Your task to perform on an android device: turn notification dots on Image 0: 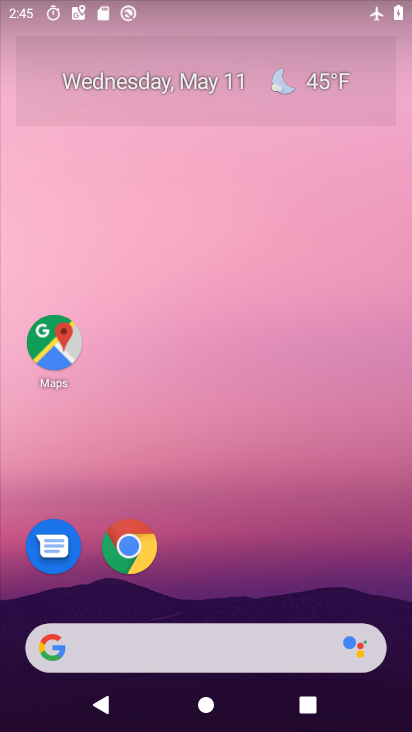
Step 0: drag from (214, 570) to (96, 241)
Your task to perform on an android device: turn notification dots on Image 1: 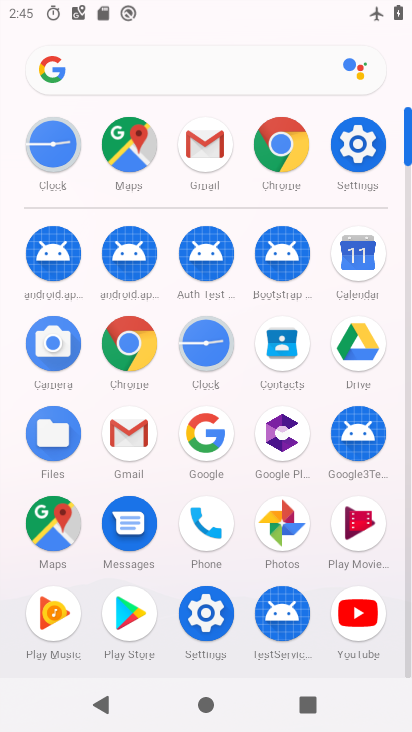
Step 1: click (368, 182)
Your task to perform on an android device: turn notification dots on Image 2: 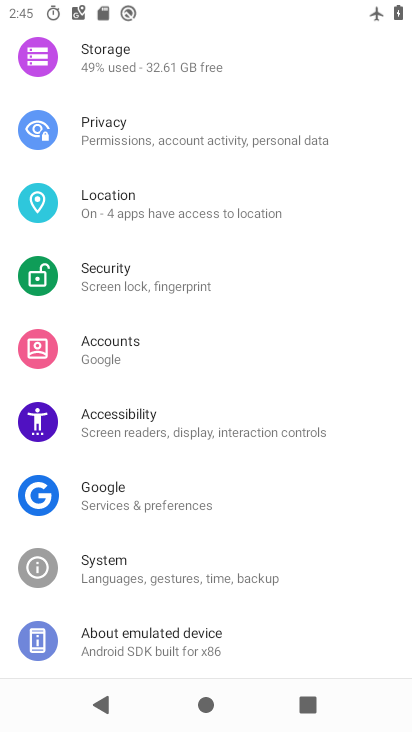
Step 2: drag from (188, 154) to (207, 519)
Your task to perform on an android device: turn notification dots on Image 3: 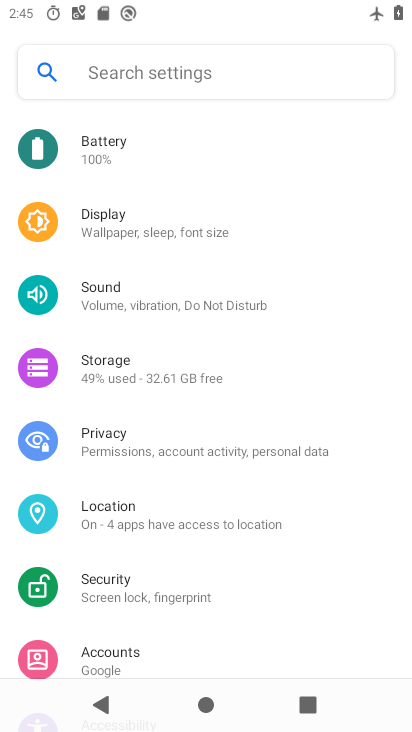
Step 3: drag from (158, 187) to (186, 613)
Your task to perform on an android device: turn notification dots on Image 4: 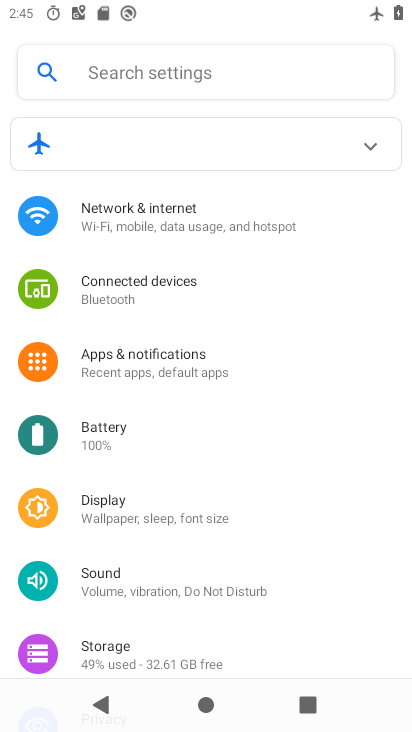
Step 4: click (162, 379)
Your task to perform on an android device: turn notification dots on Image 5: 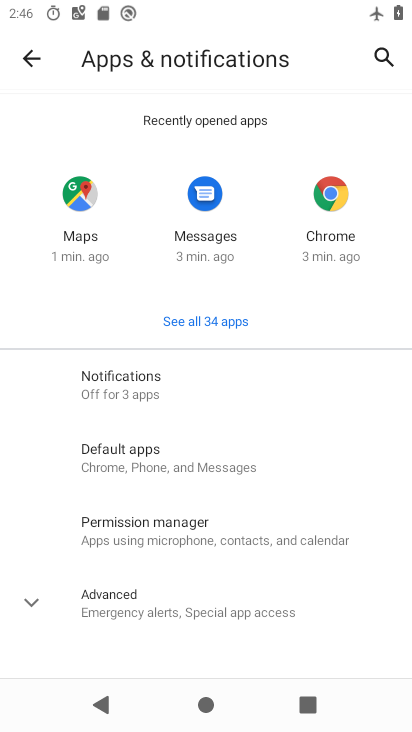
Step 5: click (97, 600)
Your task to perform on an android device: turn notification dots on Image 6: 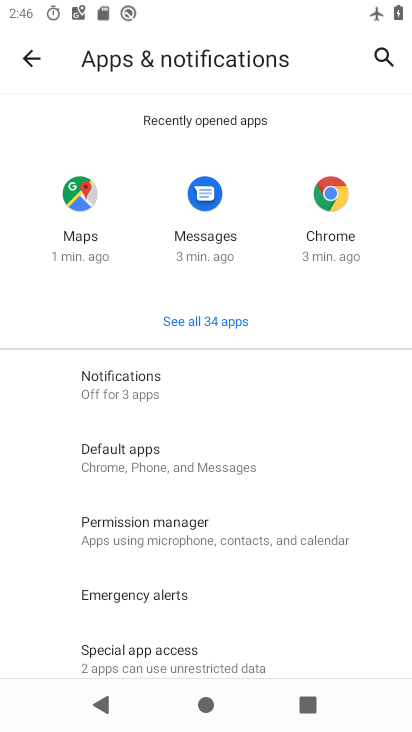
Step 6: drag from (210, 618) to (290, 163)
Your task to perform on an android device: turn notification dots on Image 7: 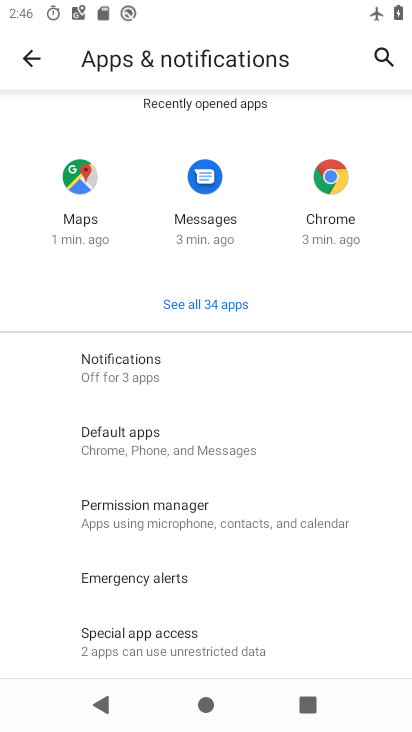
Step 7: drag from (194, 576) to (259, 210)
Your task to perform on an android device: turn notification dots on Image 8: 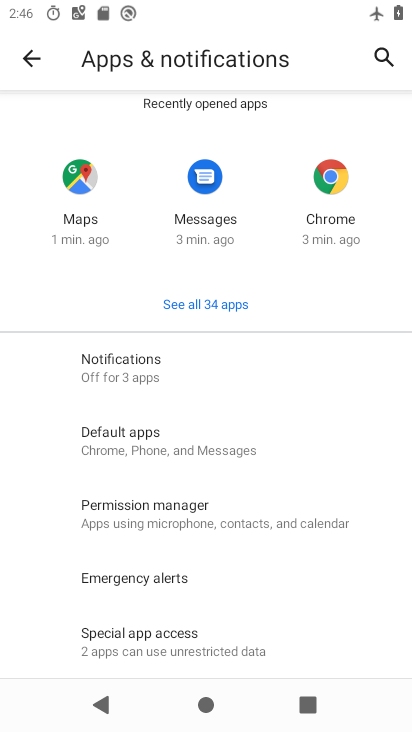
Step 8: click (163, 361)
Your task to perform on an android device: turn notification dots on Image 9: 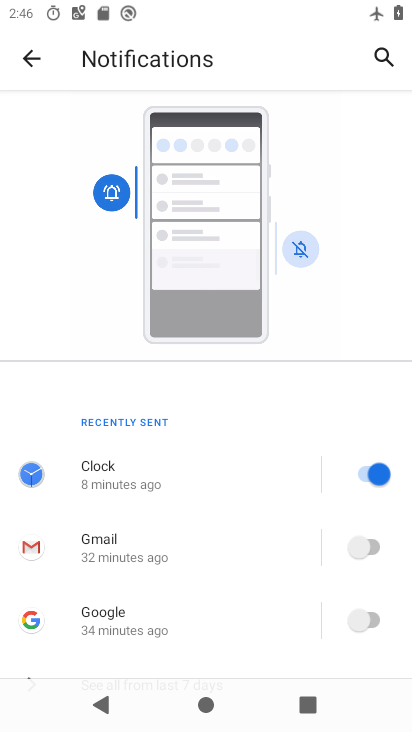
Step 9: drag from (136, 604) to (231, 114)
Your task to perform on an android device: turn notification dots on Image 10: 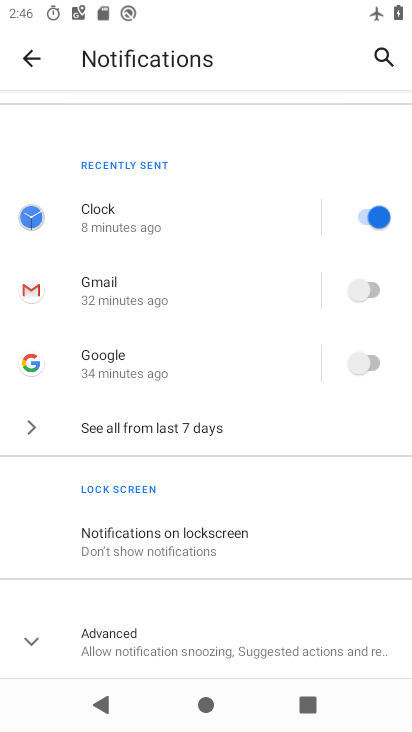
Step 10: click (166, 640)
Your task to perform on an android device: turn notification dots on Image 11: 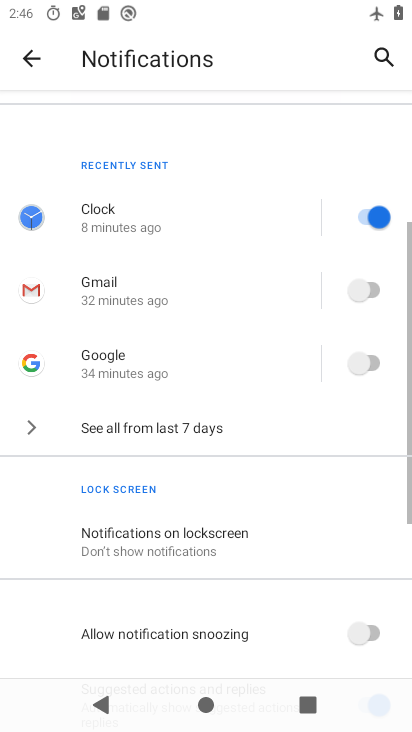
Step 11: task complete